Your task to perform on an android device: Show me popular games on the Play Store Image 0: 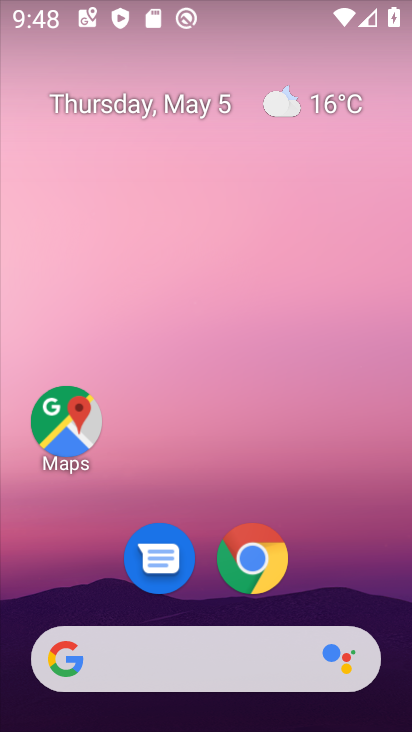
Step 0: drag from (370, 562) to (369, 112)
Your task to perform on an android device: Show me popular games on the Play Store Image 1: 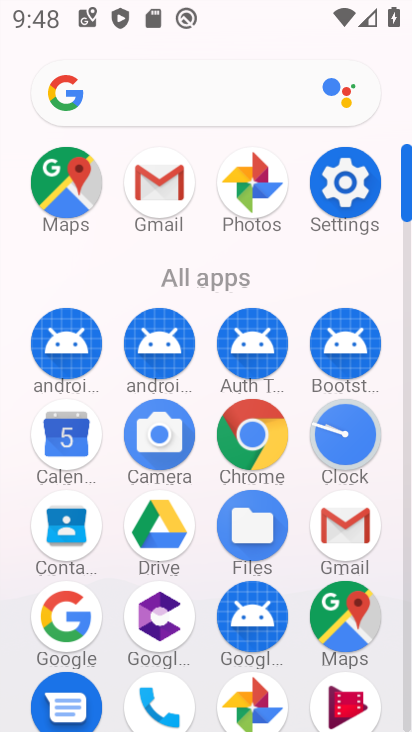
Step 1: click (409, 695)
Your task to perform on an android device: Show me popular games on the Play Store Image 2: 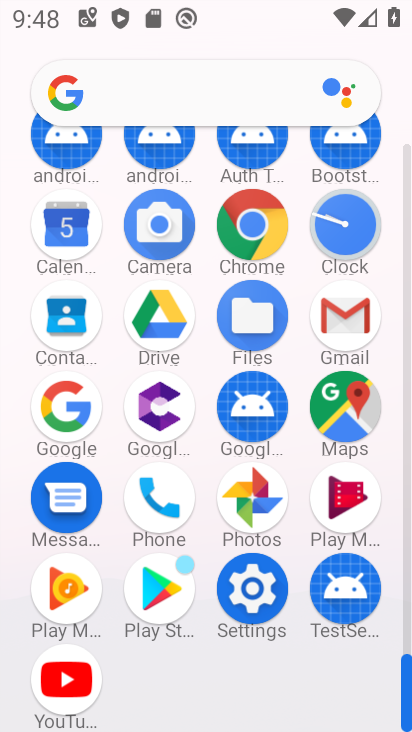
Step 2: click (173, 594)
Your task to perform on an android device: Show me popular games on the Play Store Image 3: 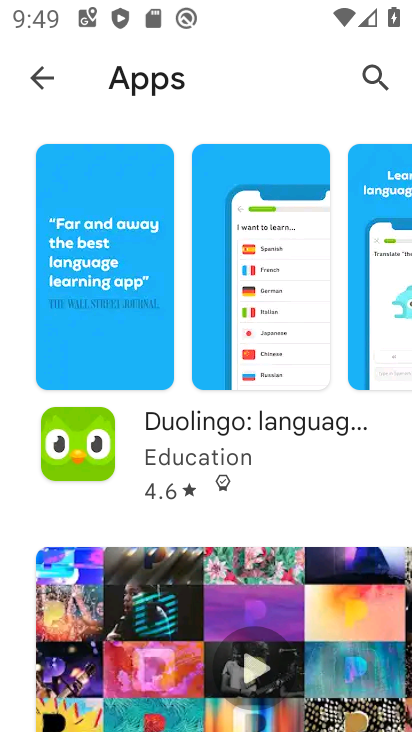
Step 3: task complete